Your task to perform on an android device: turn off airplane mode Image 0: 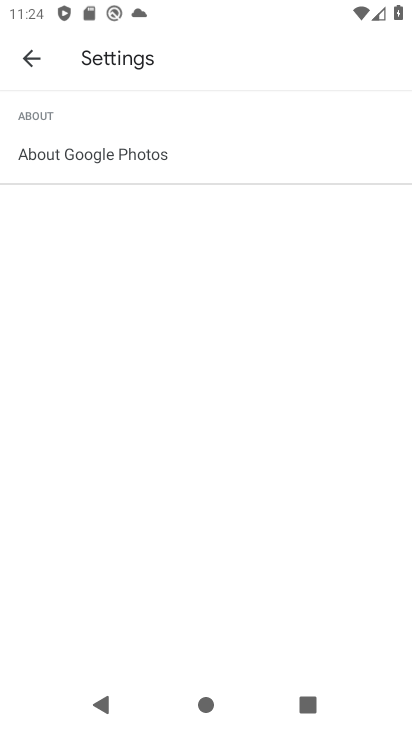
Step 0: press home button
Your task to perform on an android device: turn off airplane mode Image 1: 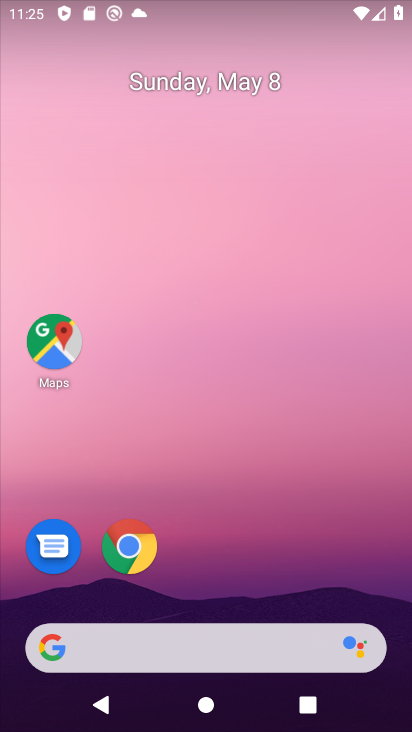
Step 1: drag from (323, 487) to (329, 107)
Your task to perform on an android device: turn off airplane mode Image 2: 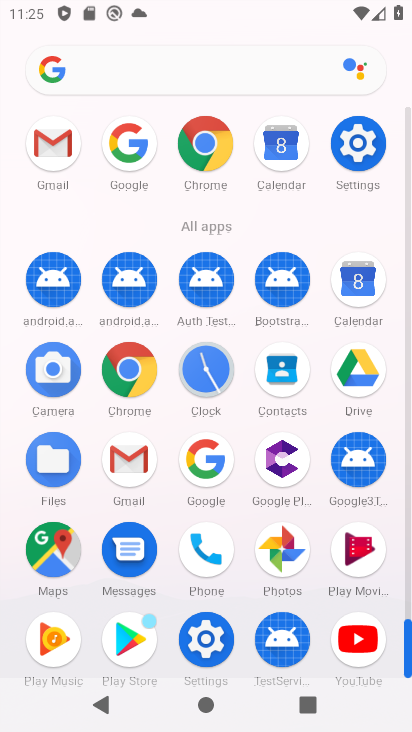
Step 2: click (349, 150)
Your task to perform on an android device: turn off airplane mode Image 3: 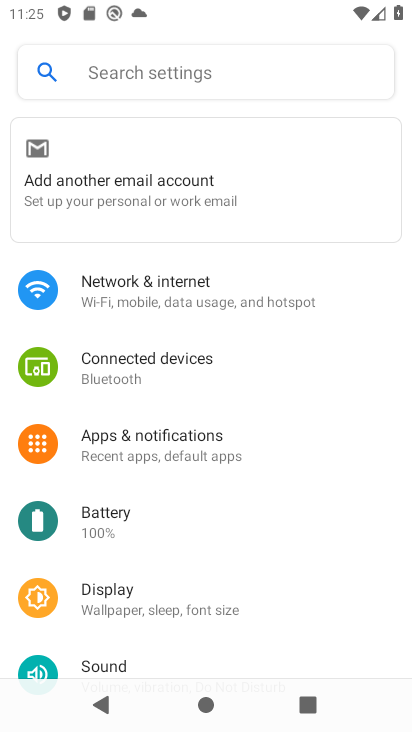
Step 3: click (226, 299)
Your task to perform on an android device: turn off airplane mode Image 4: 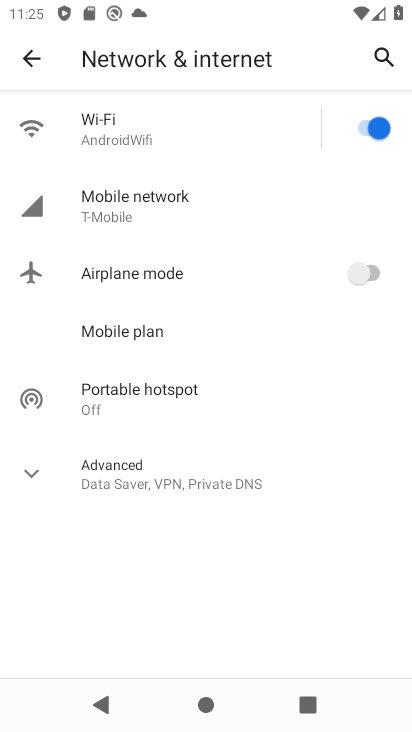
Step 4: task complete